Your task to perform on an android device: Play the last video I watched on Youtube Image 0: 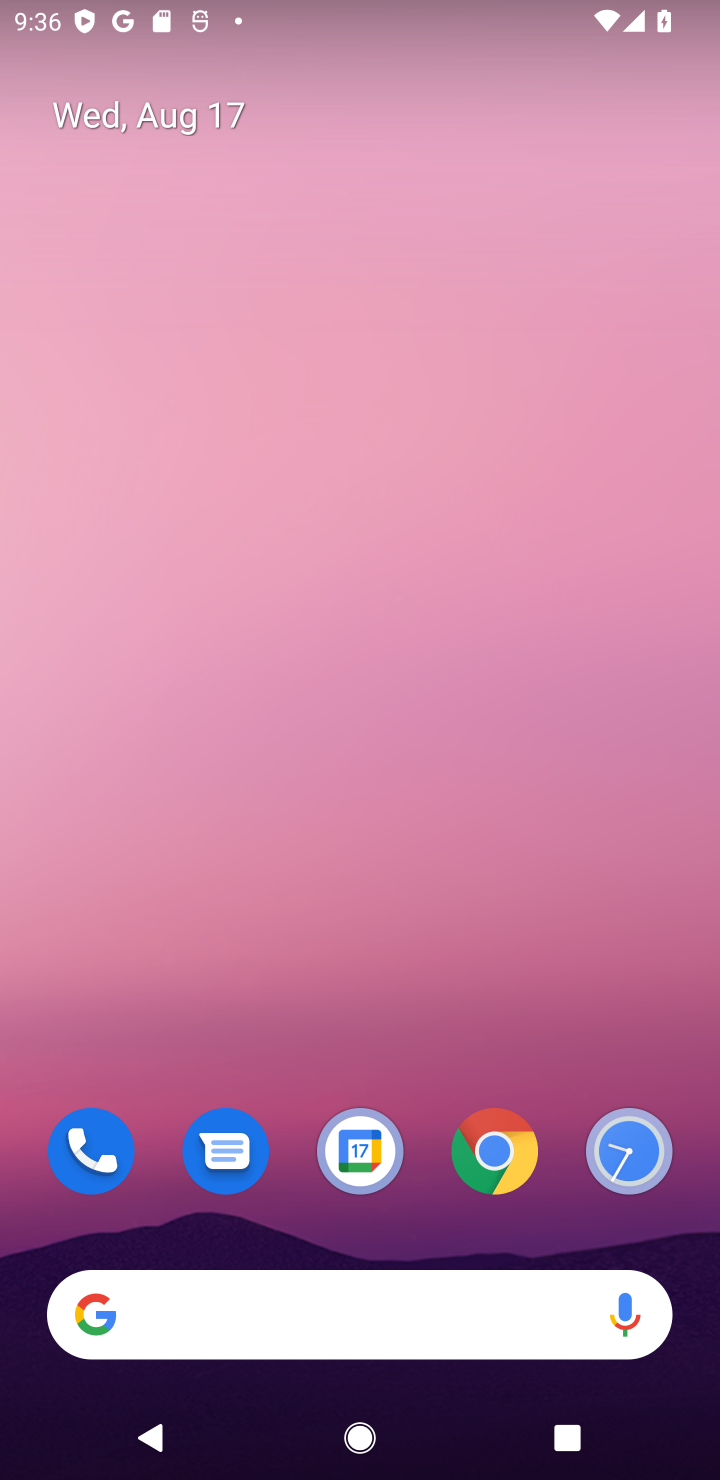
Step 0: drag from (349, 117) to (347, 30)
Your task to perform on an android device: Play the last video I watched on Youtube Image 1: 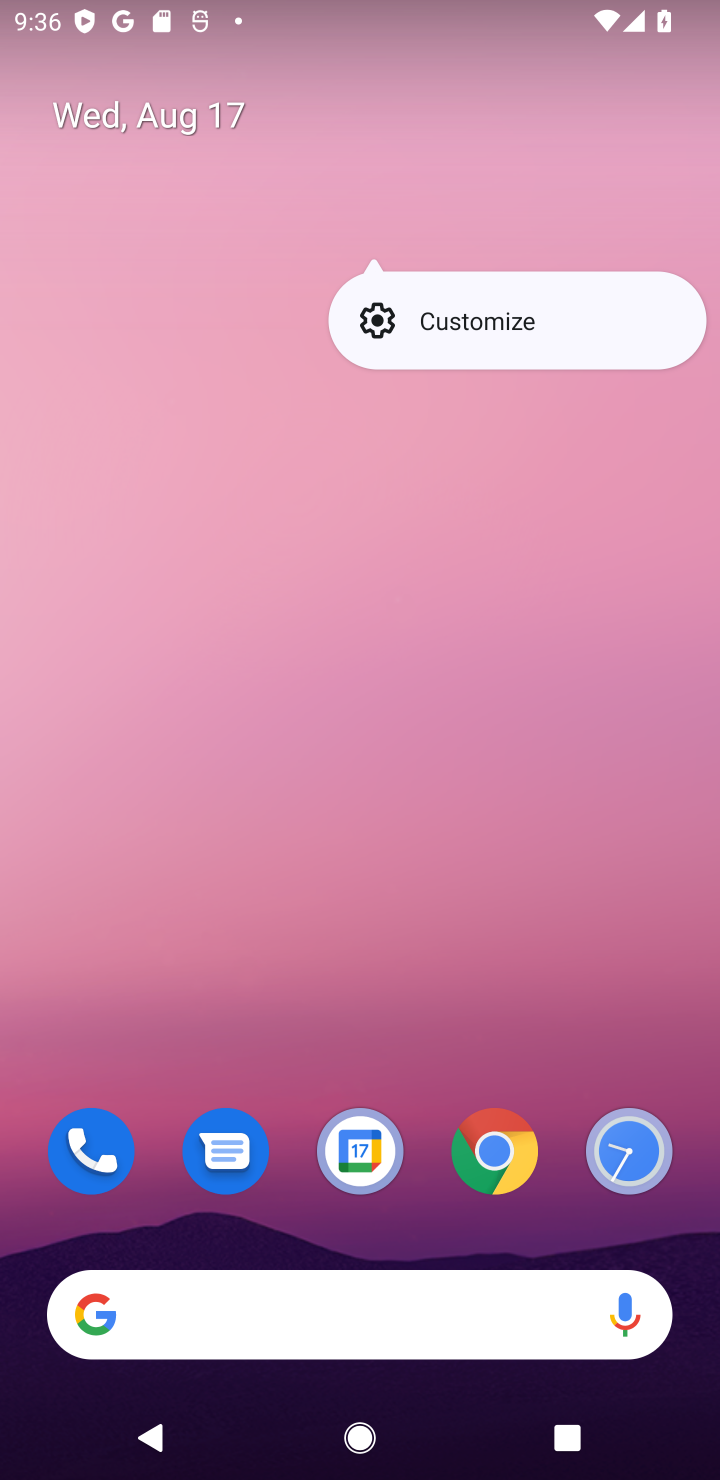
Step 1: drag from (407, 1151) to (371, 25)
Your task to perform on an android device: Play the last video I watched on Youtube Image 2: 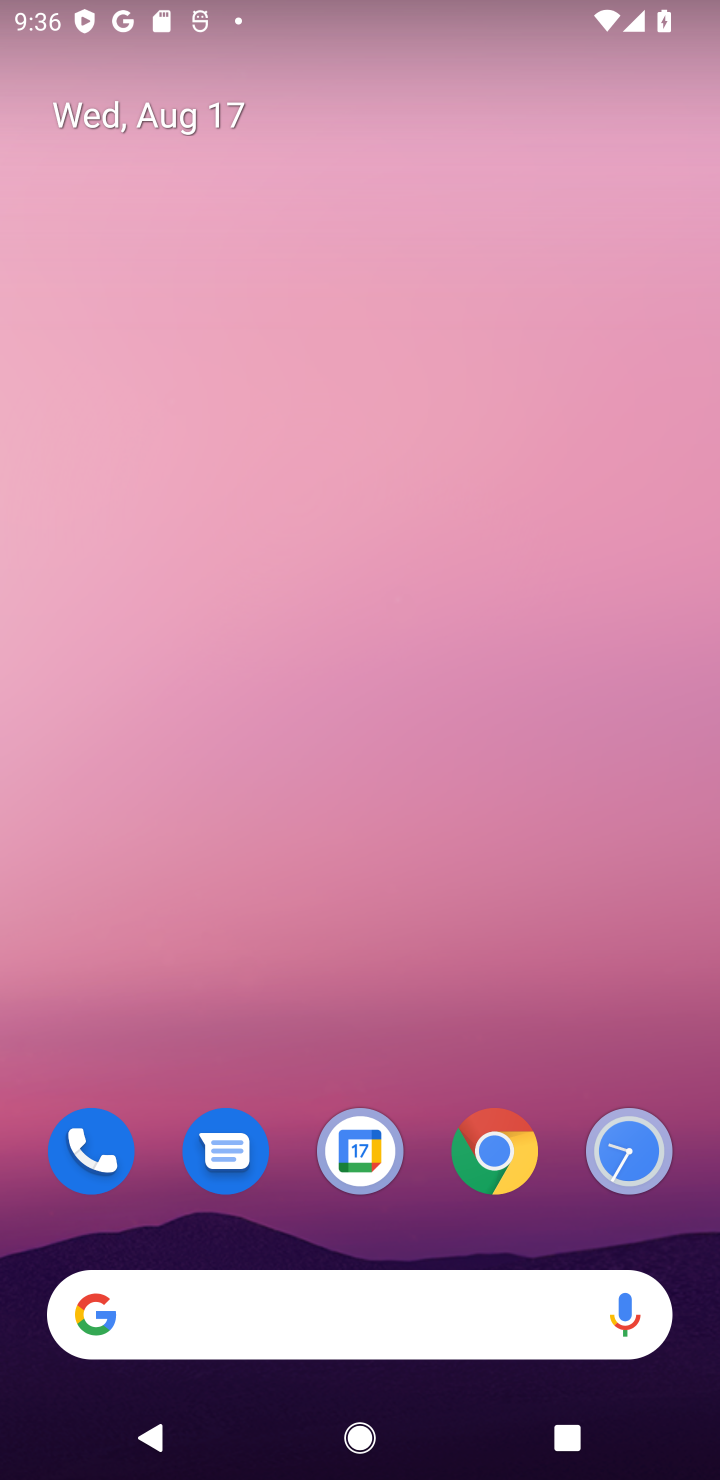
Step 2: drag from (352, 1177) to (352, 327)
Your task to perform on an android device: Play the last video I watched on Youtube Image 3: 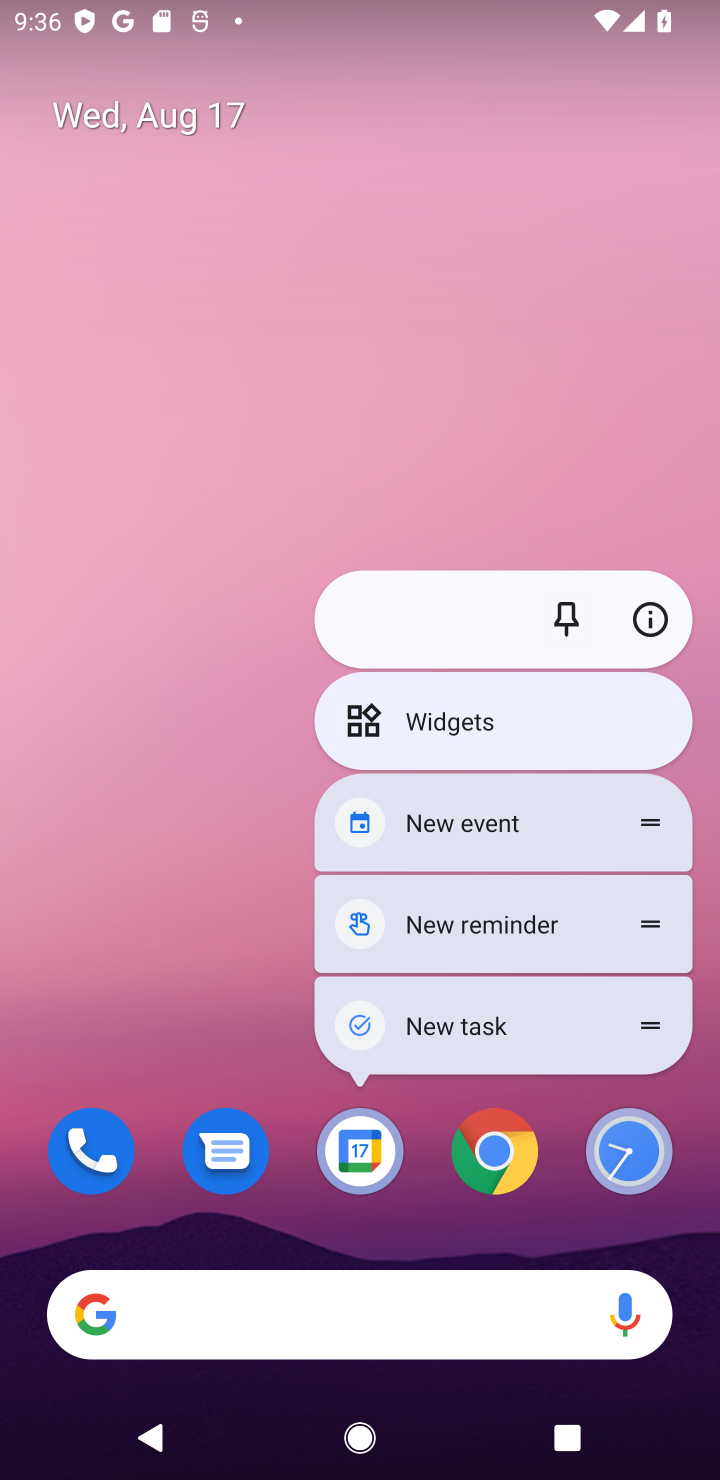
Step 3: drag from (319, 1178) to (296, 145)
Your task to perform on an android device: Play the last video I watched on Youtube Image 4: 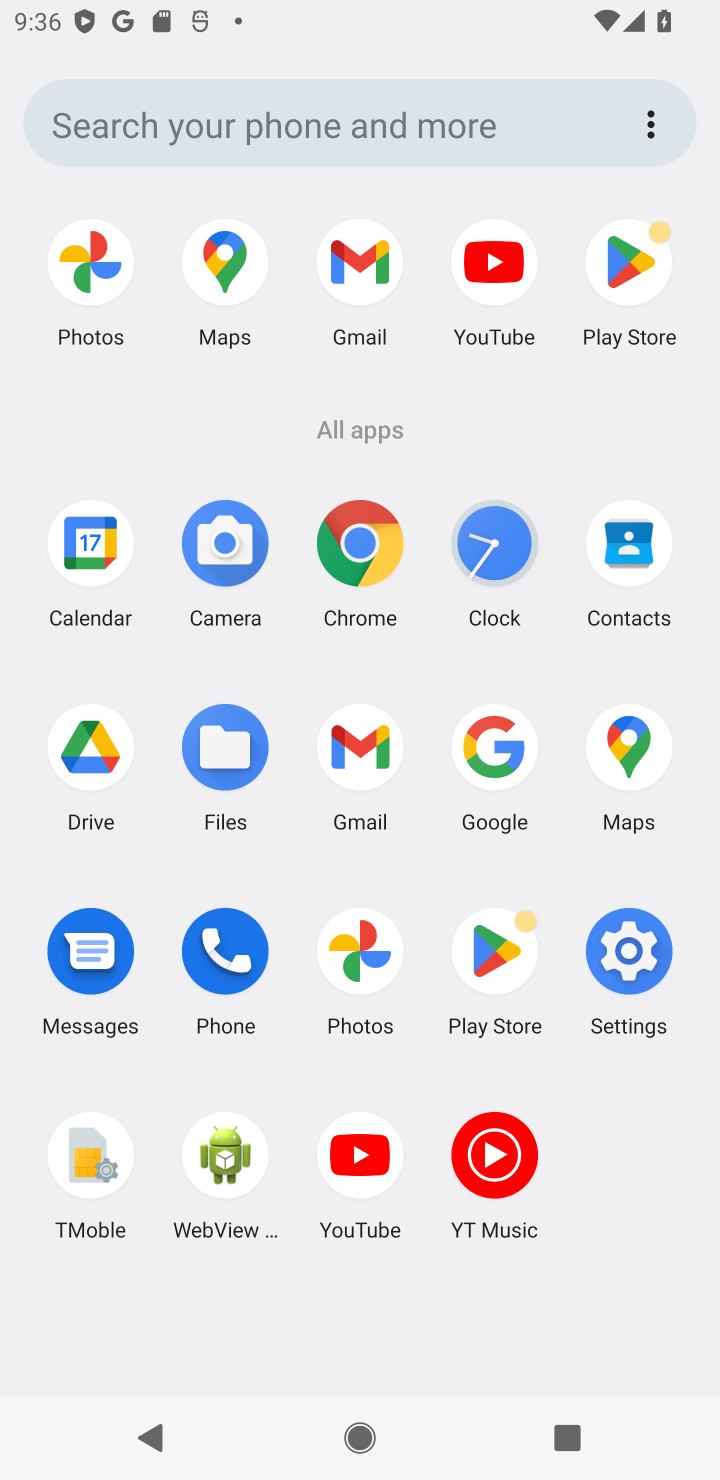
Step 4: click (340, 1147)
Your task to perform on an android device: Play the last video I watched on Youtube Image 5: 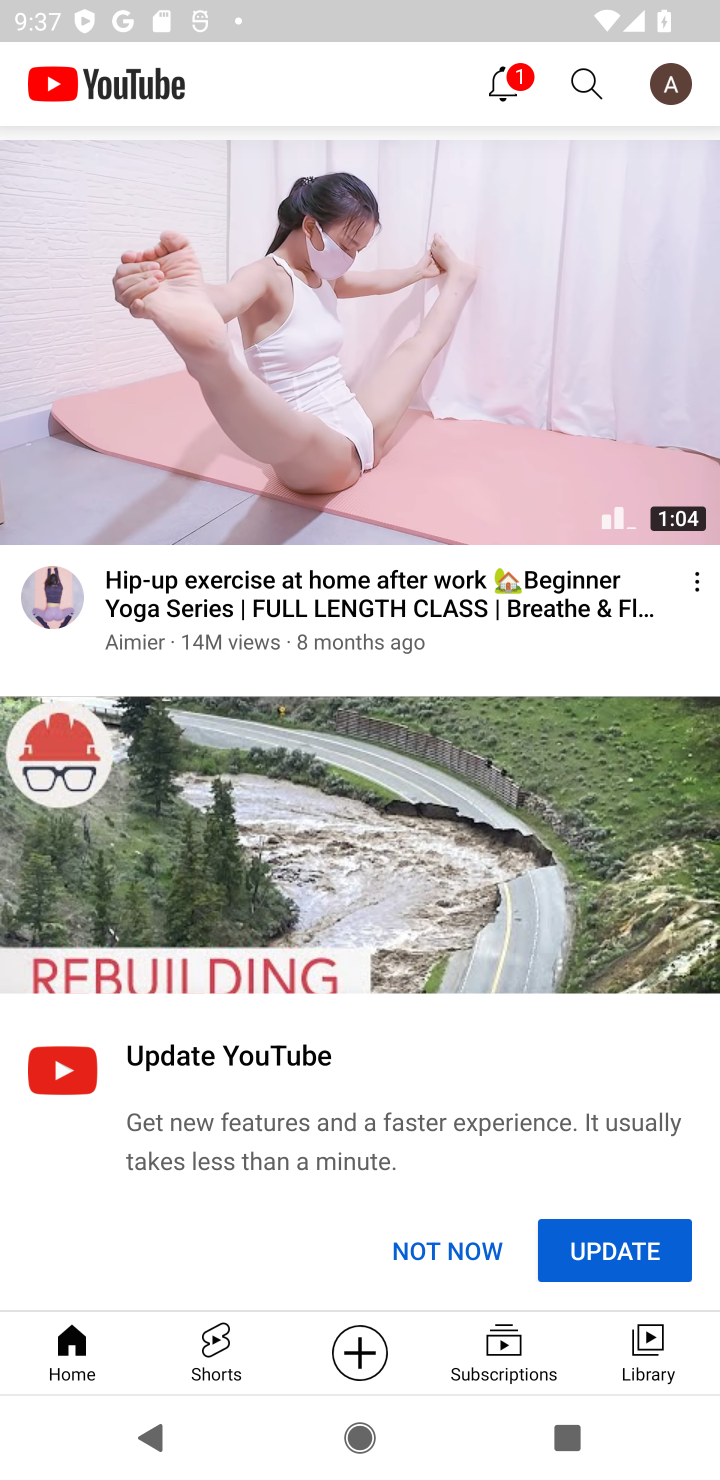
Step 5: click (671, 1344)
Your task to perform on an android device: Play the last video I watched on Youtube Image 6: 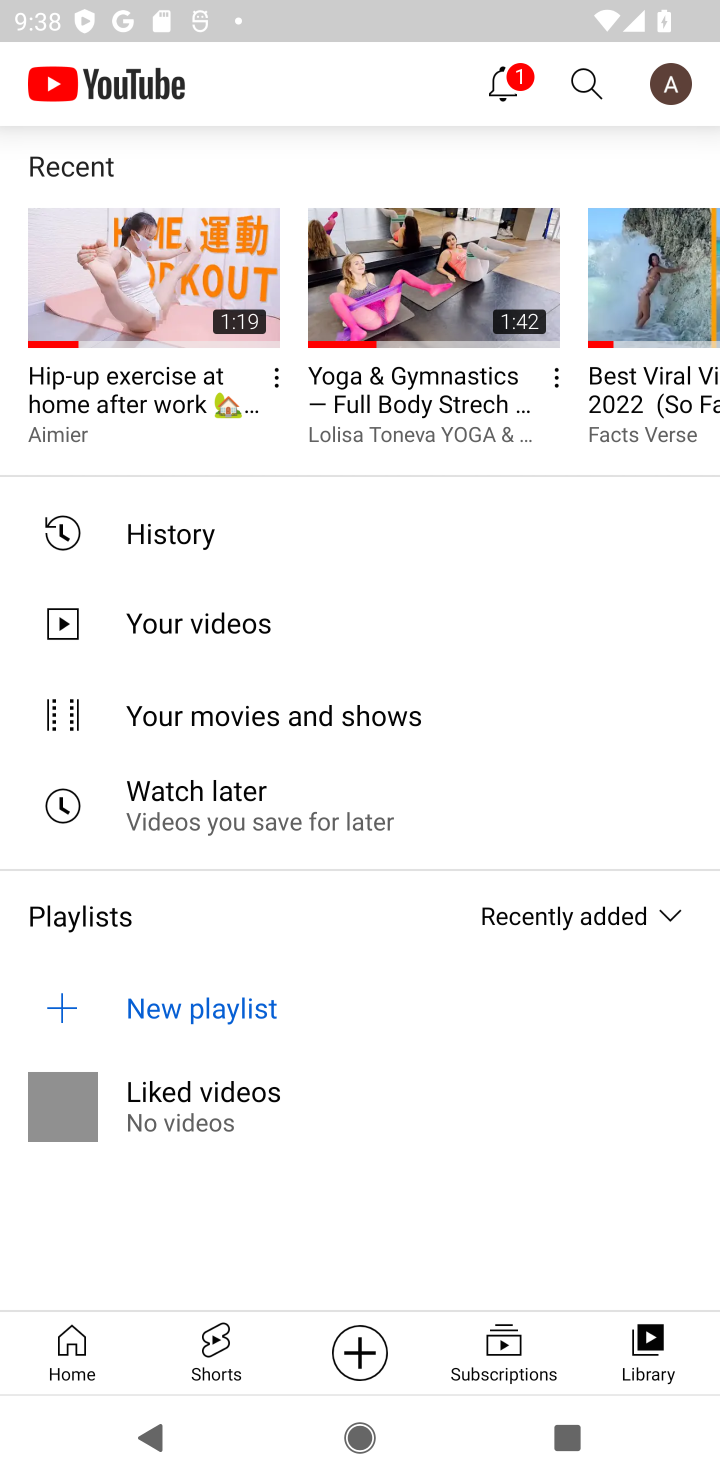
Step 6: task complete